Your task to perform on an android device: turn on data saver in the chrome app Image 0: 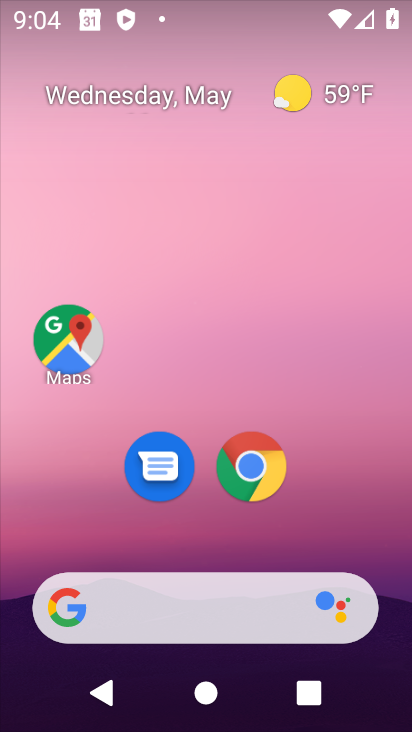
Step 0: drag from (340, 506) to (340, 162)
Your task to perform on an android device: turn on data saver in the chrome app Image 1: 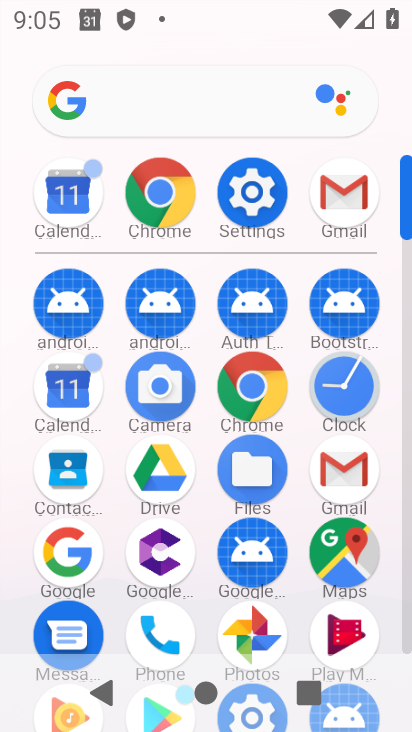
Step 1: click (162, 192)
Your task to perform on an android device: turn on data saver in the chrome app Image 2: 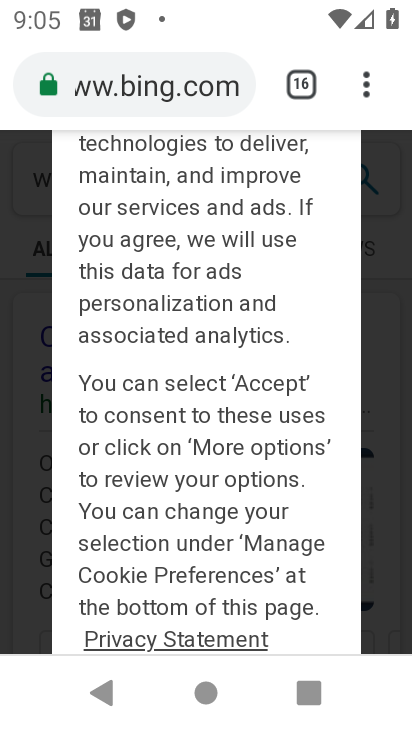
Step 2: click (336, 88)
Your task to perform on an android device: turn on data saver in the chrome app Image 3: 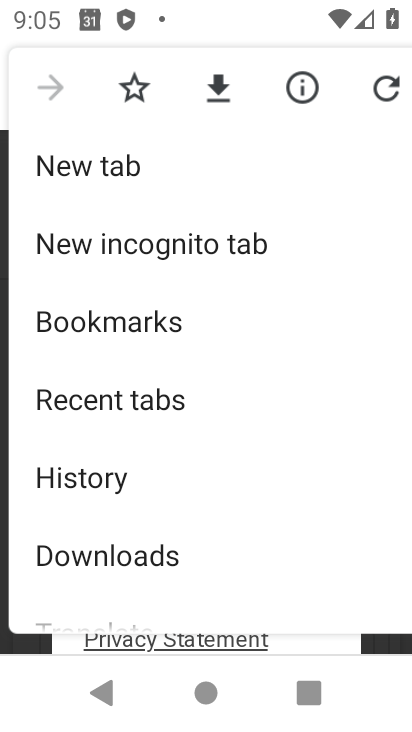
Step 3: drag from (221, 495) to (216, 284)
Your task to perform on an android device: turn on data saver in the chrome app Image 4: 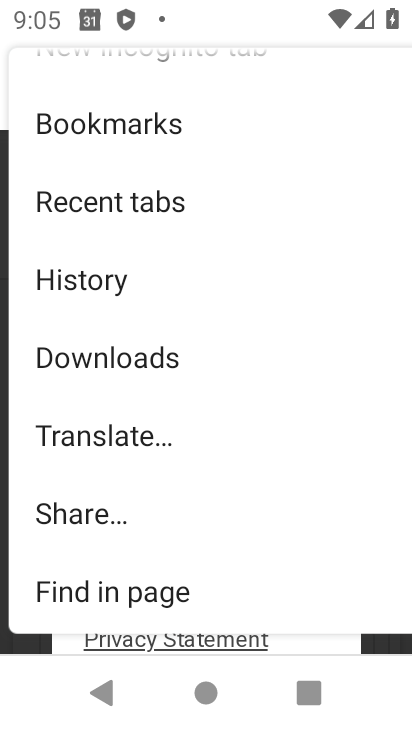
Step 4: drag from (168, 542) to (217, 156)
Your task to perform on an android device: turn on data saver in the chrome app Image 5: 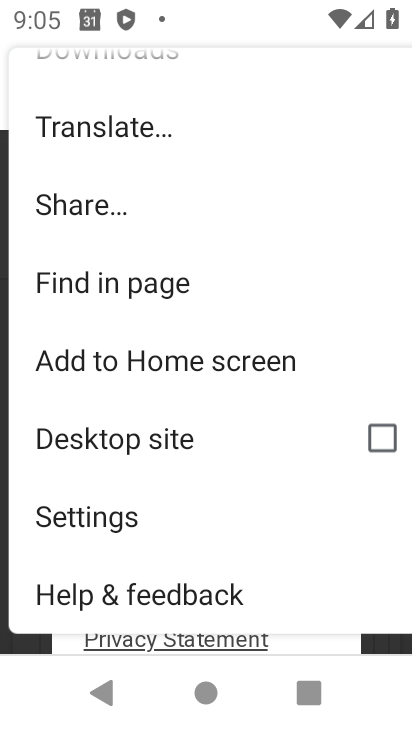
Step 5: click (128, 521)
Your task to perform on an android device: turn on data saver in the chrome app Image 6: 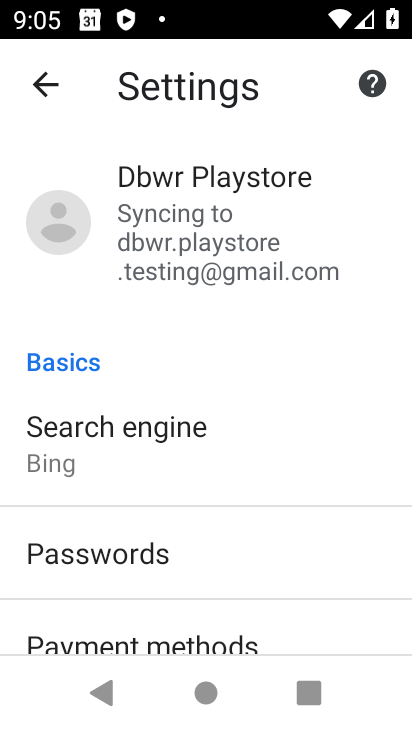
Step 6: drag from (197, 613) to (308, 140)
Your task to perform on an android device: turn on data saver in the chrome app Image 7: 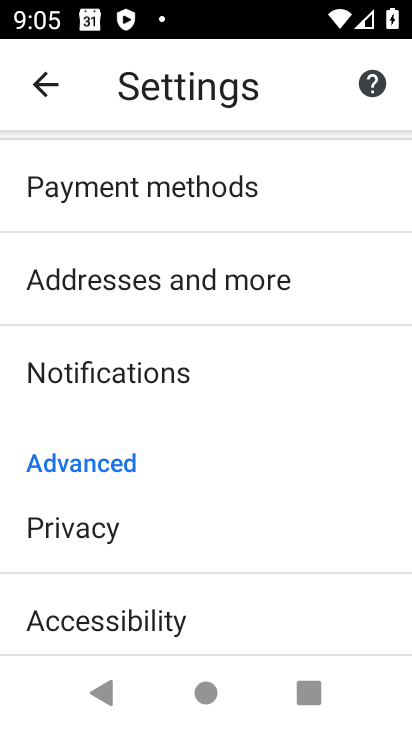
Step 7: drag from (131, 593) to (223, 185)
Your task to perform on an android device: turn on data saver in the chrome app Image 8: 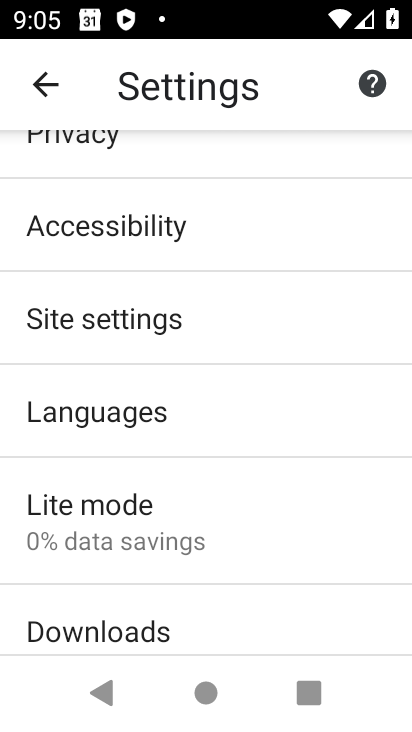
Step 8: click (140, 527)
Your task to perform on an android device: turn on data saver in the chrome app Image 9: 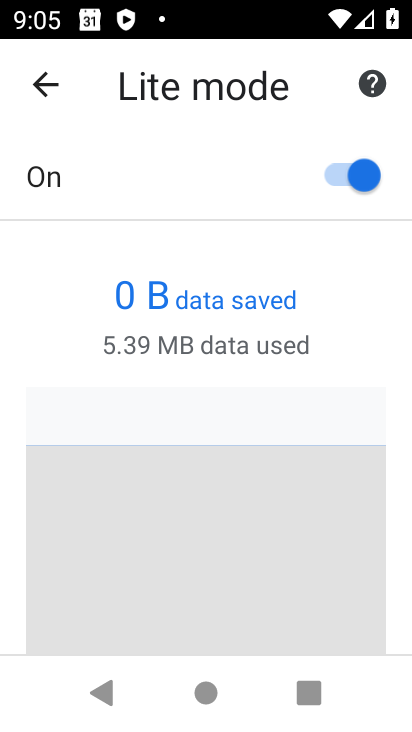
Step 9: task complete